Your task to perform on an android device: Search for a runner rug on Crate & Barrel Image 0: 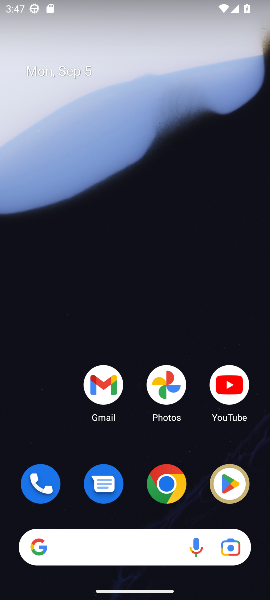
Step 0: click (167, 488)
Your task to perform on an android device: Search for a runner rug on Crate & Barrel Image 1: 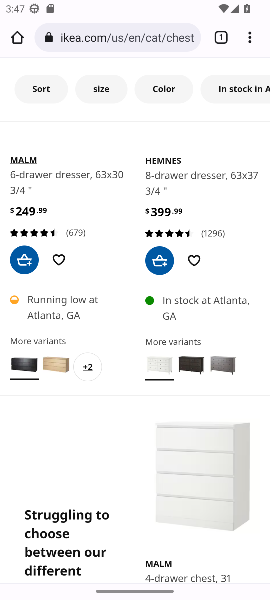
Step 1: click (137, 41)
Your task to perform on an android device: Search for a runner rug on Crate & Barrel Image 2: 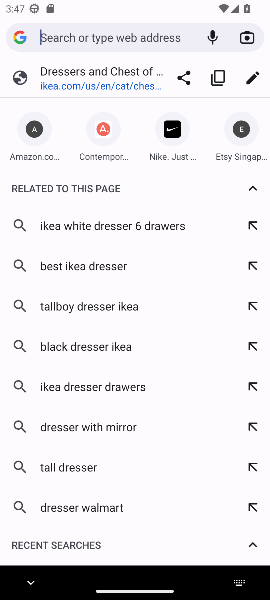
Step 2: type "Crate & Barrel"
Your task to perform on an android device: Search for a runner rug on Crate & Barrel Image 3: 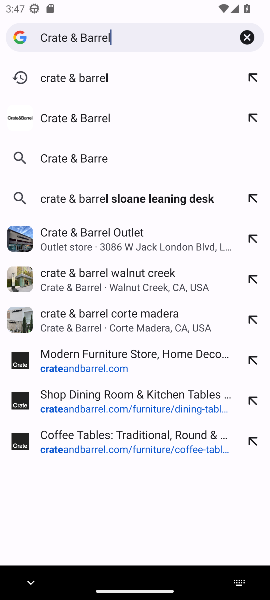
Step 3: press enter
Your task to perform on an android device: Search for a runner rug on Crate & Barrel Image 4: 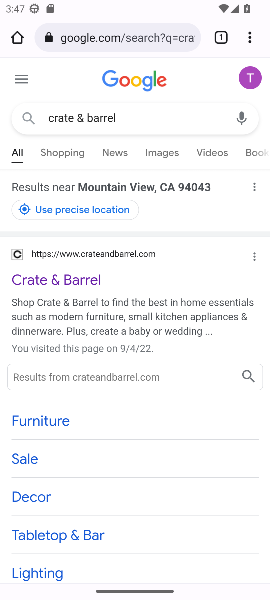
Step 4: click (71, 283)
Your task to perform on an android device: Search for a runner rug on Crate & Barrel Image 5: 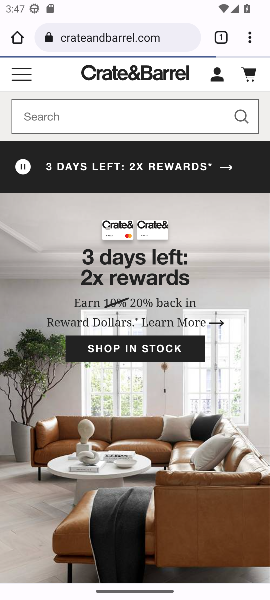
Step 5: click (132, 119)
Your task to perform on an android device: Search for a runner rug on Crate & Barrel Image 6: 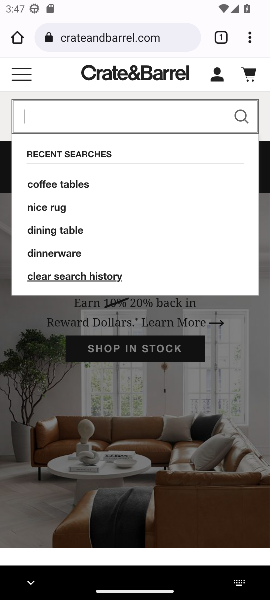
Step 6: click (154, 115)
Your task to perform on an android device: Search for a runner rug on Crate & Barrel Image 7: 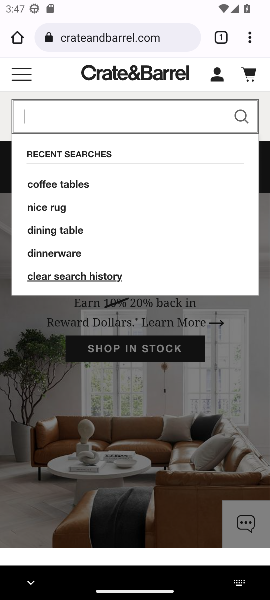
Step 7: type " runner rug"
Your task to perform on an android device: Search for a runner rug on Crate & Barrel Image 8: 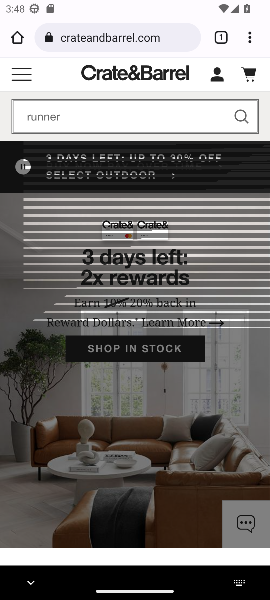
Step 8: press enter
Your task to perform on an android device: Search for a runner rug on Crate & Barrel Image 9: 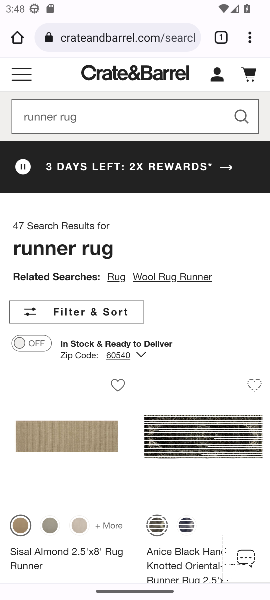
Step 9: drag from (173, 393) to (193, 42)
Your task to perform on an android device: Search for a runner rug on Crate & Barrel Image 10: 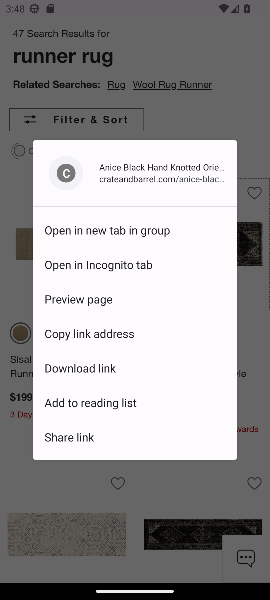
Step 10: click (251, 300)
Your task to perform on an android device: Search for a runner rug on Crate & Barrel Image 11: 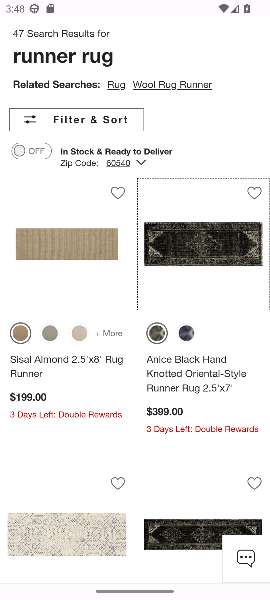
Step 11: task complete